Your task to perform on an android device: Go to Wikipedia Image 0: 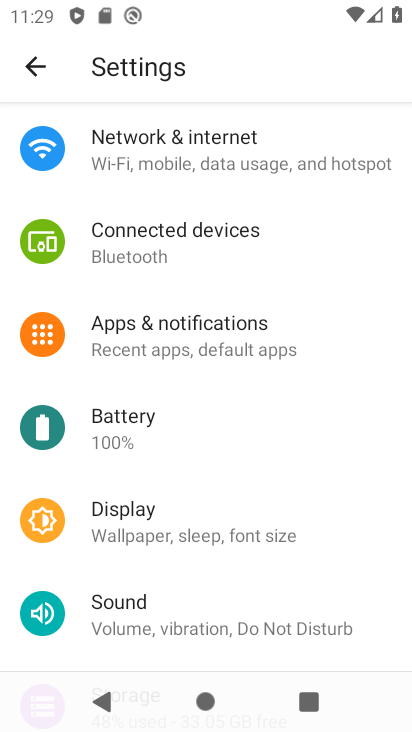
Step 0: press home button
Your task to perform on an android device: Go to Wikipedia Image 1: 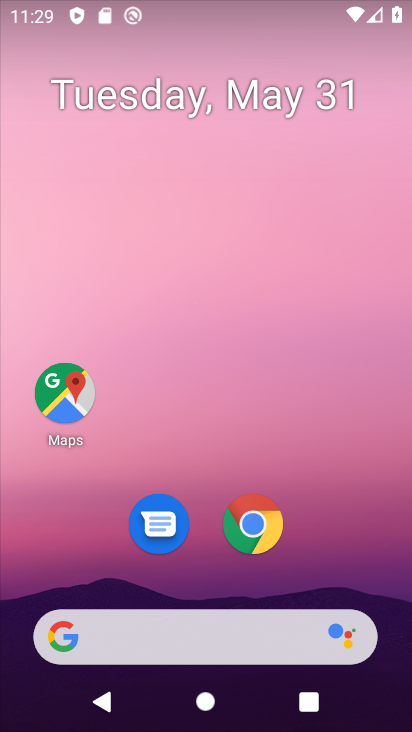
Step 1: click (245, 529)
Your task to perform on an android device: Go to Wikipedia Image 2: 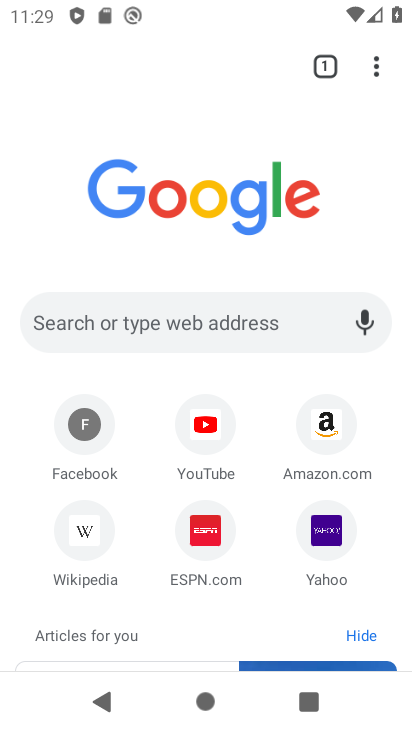
Step 2: click (80, 534)
Your task to perform on an android device: Go to Wikipedia Image 3: 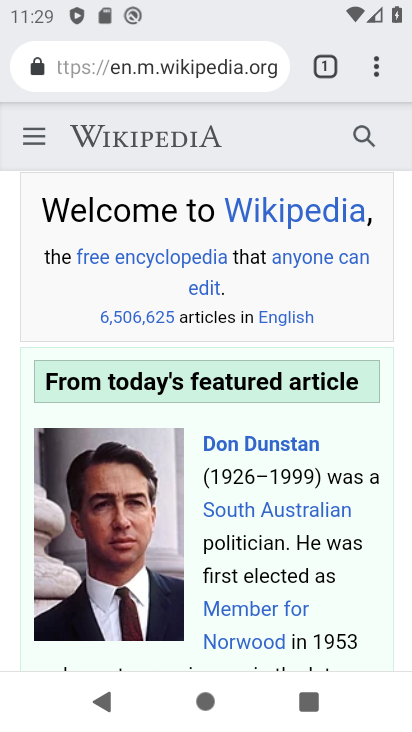
Step 3: task complete